Your task to perform on an android device: choose inbox layout in the gmail app Image 0: 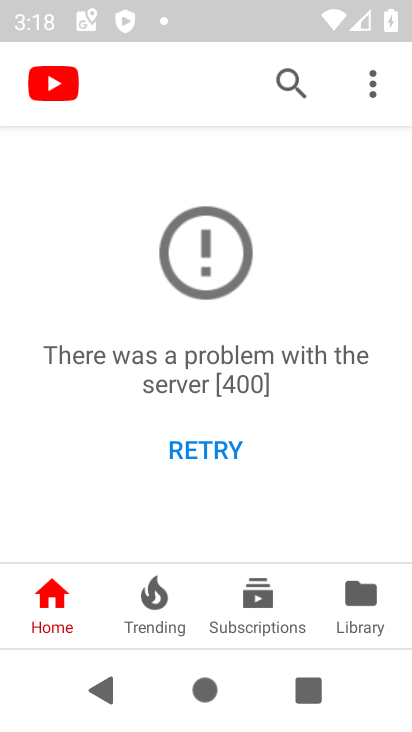
Step 0: task complete